Your task to perform on an android device: turn on improve location accuracy Image 0: 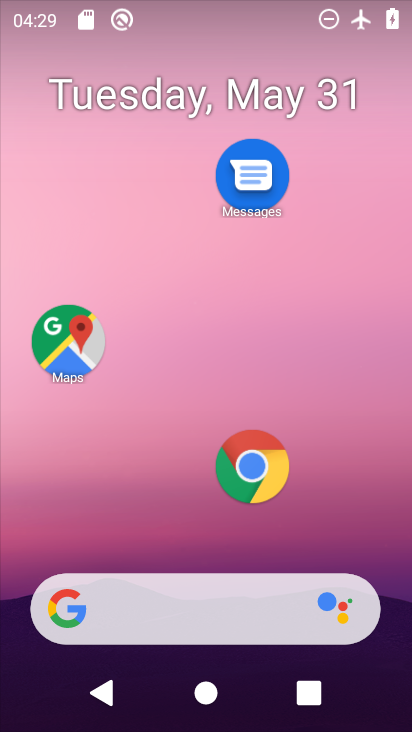
Step 0: drag from (114, 561) to (199, 98)
Your task to perform on an android device: turn on improve location accuracy Image 1: 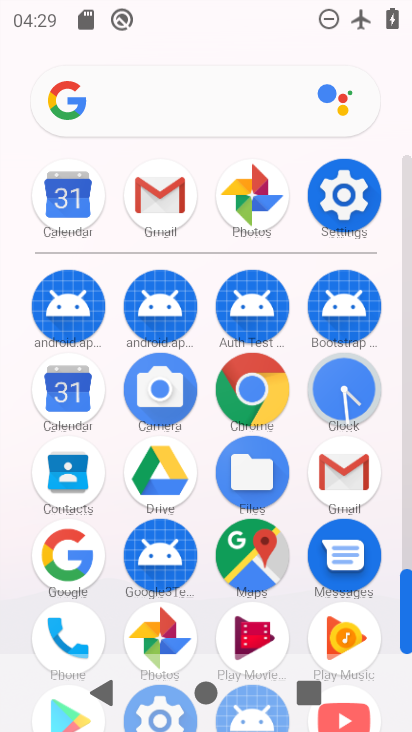
Step 1: click (332, 194)
Your task to perform on an android device: turn on improve location accuracy Image 2: 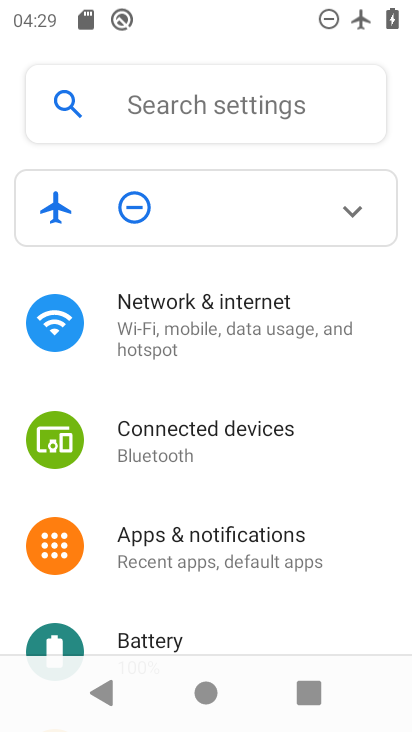
Step 2: drag from (184, 595) to (266, 132)
Your task to perform on an android device: turn on improve location accuracy Image 3: 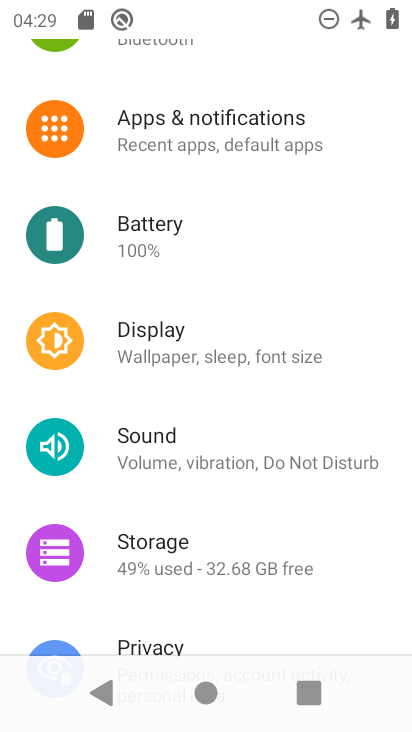
Step 3: drag from (187, 576) to (238, 205)
Your task to perform on an android device: turn on improve location accuracy Image 4: 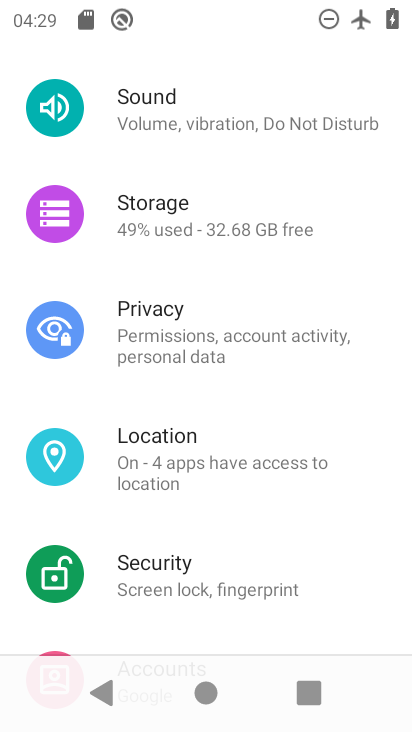
Step 4: click (178, 455)
Your task to perform on an android device: turn on improve location accuracy Image 5: 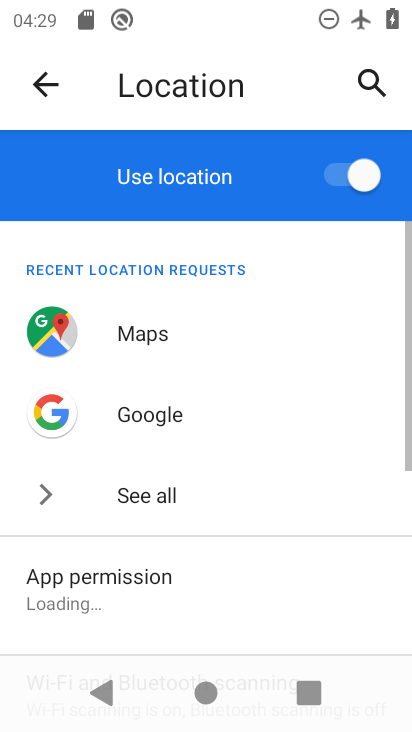
Step 5: drag from (162, 619) to (220, 170)
Your task to perform on an android device: turn on improve location accuracy Image 6: 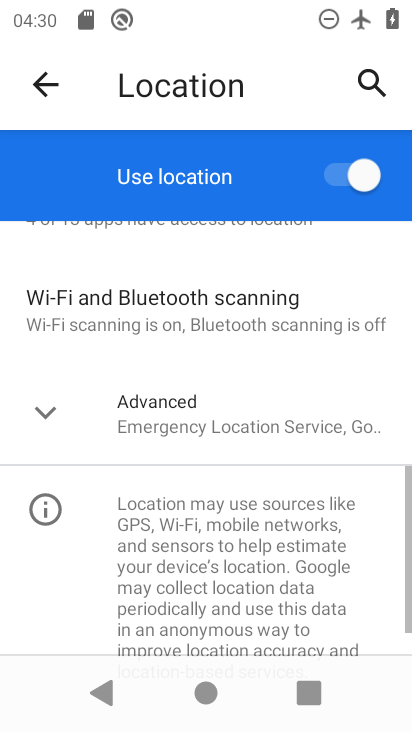
Step 6: click (160, 398)
Your task to perform on an android device: turn on improve location accuracy Image 7: 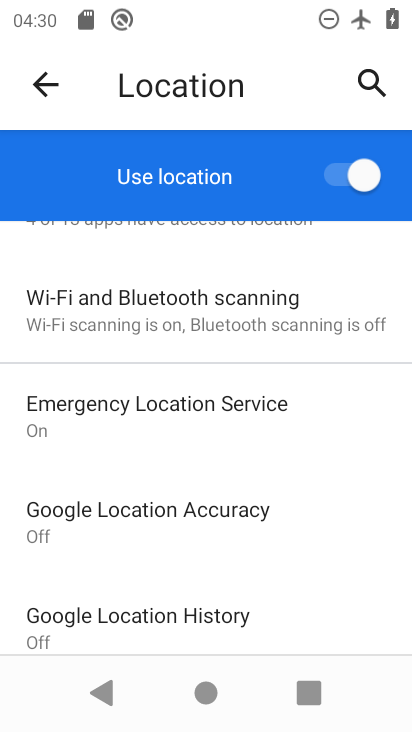
Step 7: click (164, 516)
Your task to perform on an android device: turn on improve location accuracy Image 8: 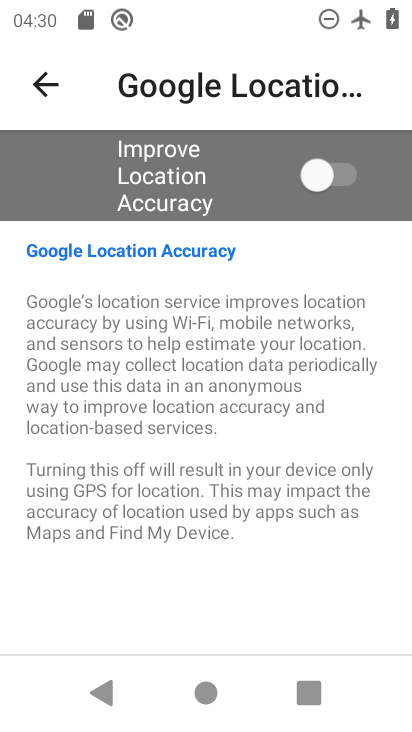
Step 8: click (317, 182)
Your task to perform on an android device: turn on improve location accuracy Image 9: 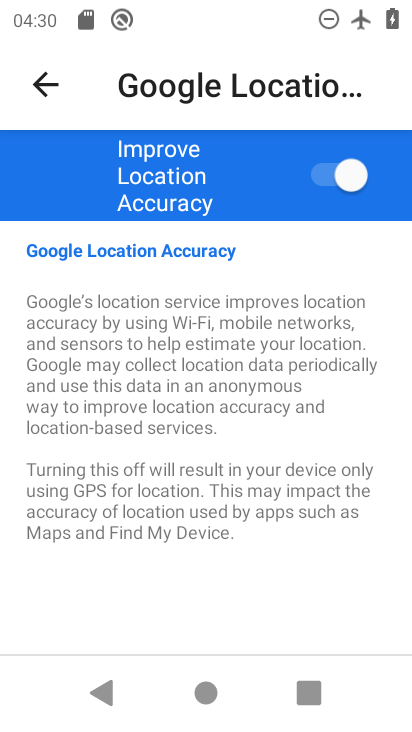
Step 9: task complete